Your task to perform on an android device: open app "McDonald's" (install if not already installed) Image 0: 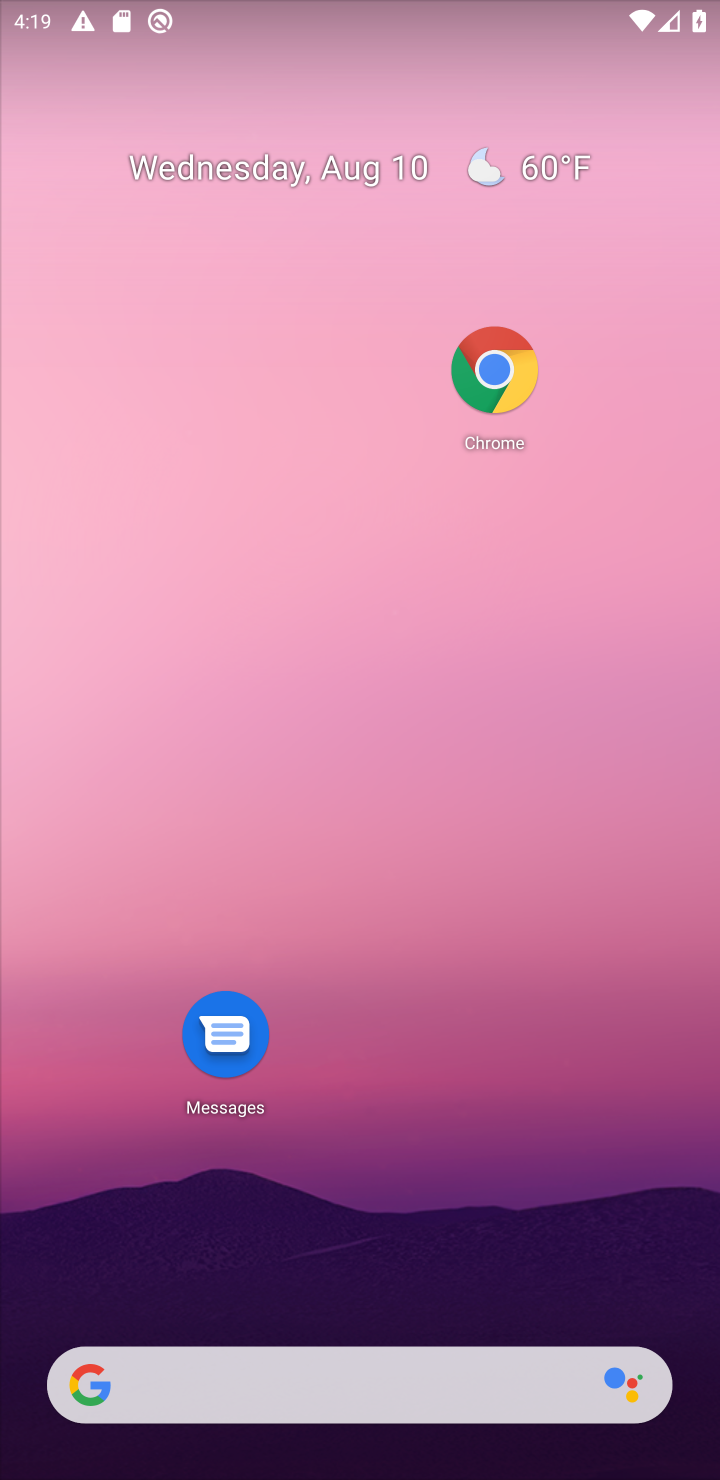
Step 0: click (57, 92)
Your task to perform on an android device: open app "McDonald's" (install if not already installed) Image 1: 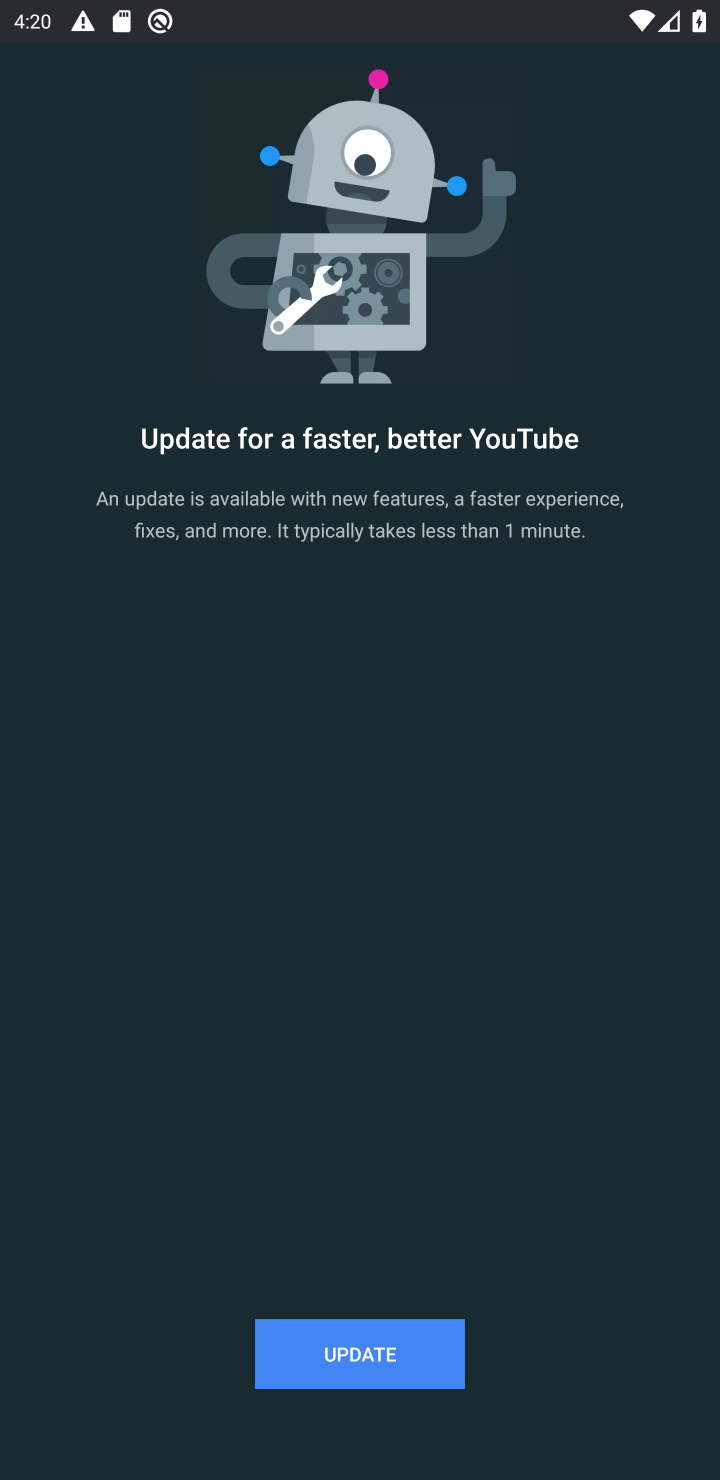
Step 1: press home button
Your task to perform on an android device: open app "McDonald's" (install if not already installed) Image 2: 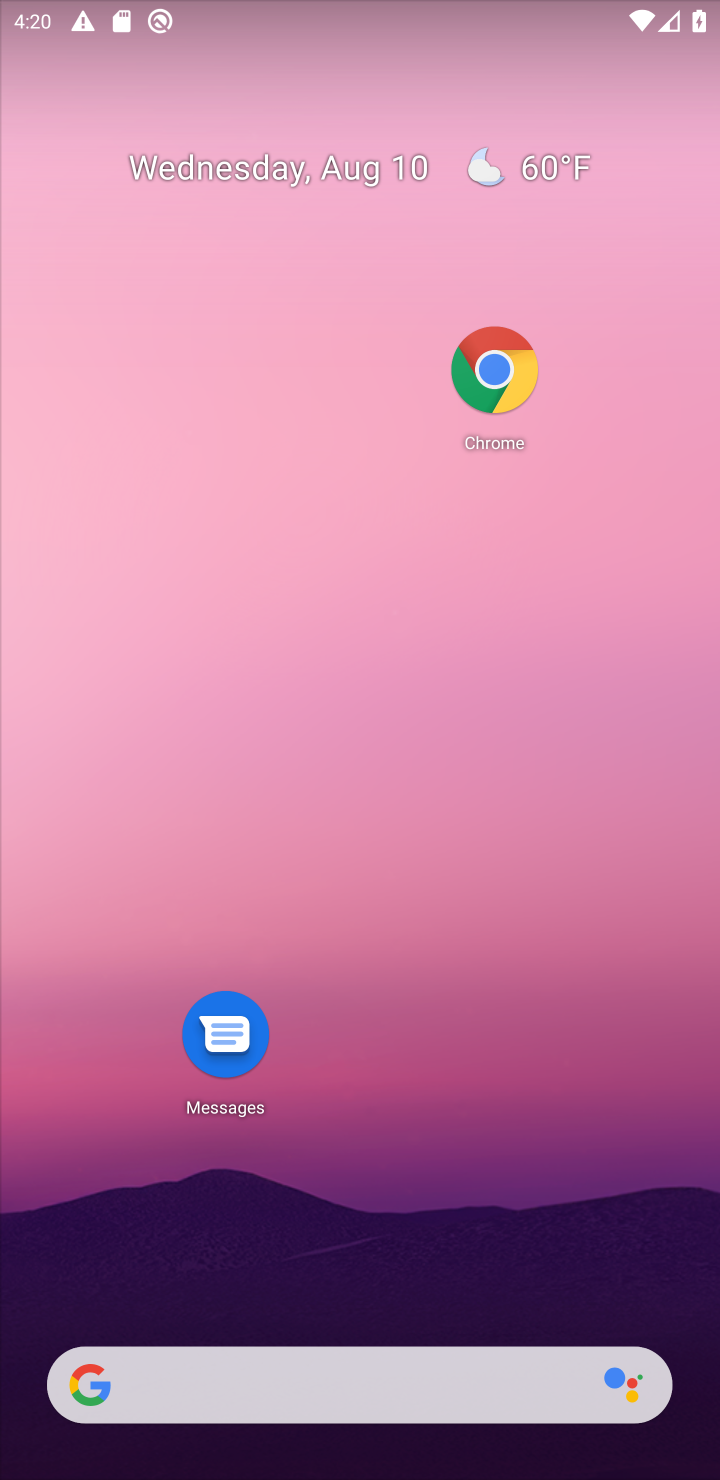
Step 2: drag from (357, 1304) to (362, 364)
Your task to perform on an android device: open app "McDonald's" (install if not already installed) Image 3: 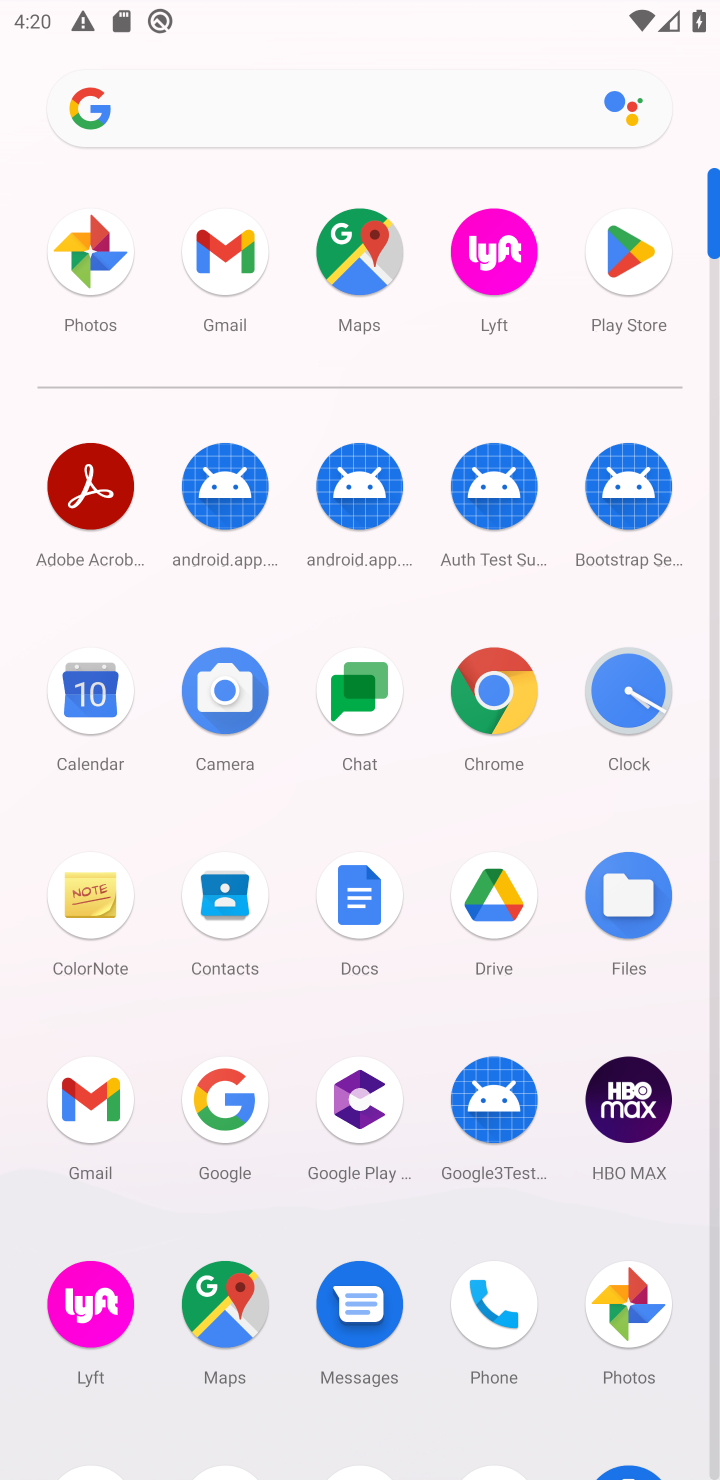
Step 3: click (607, 236)
Your task to perform on an android device: open app "McDonald's" (install if not already installed) Image 4: 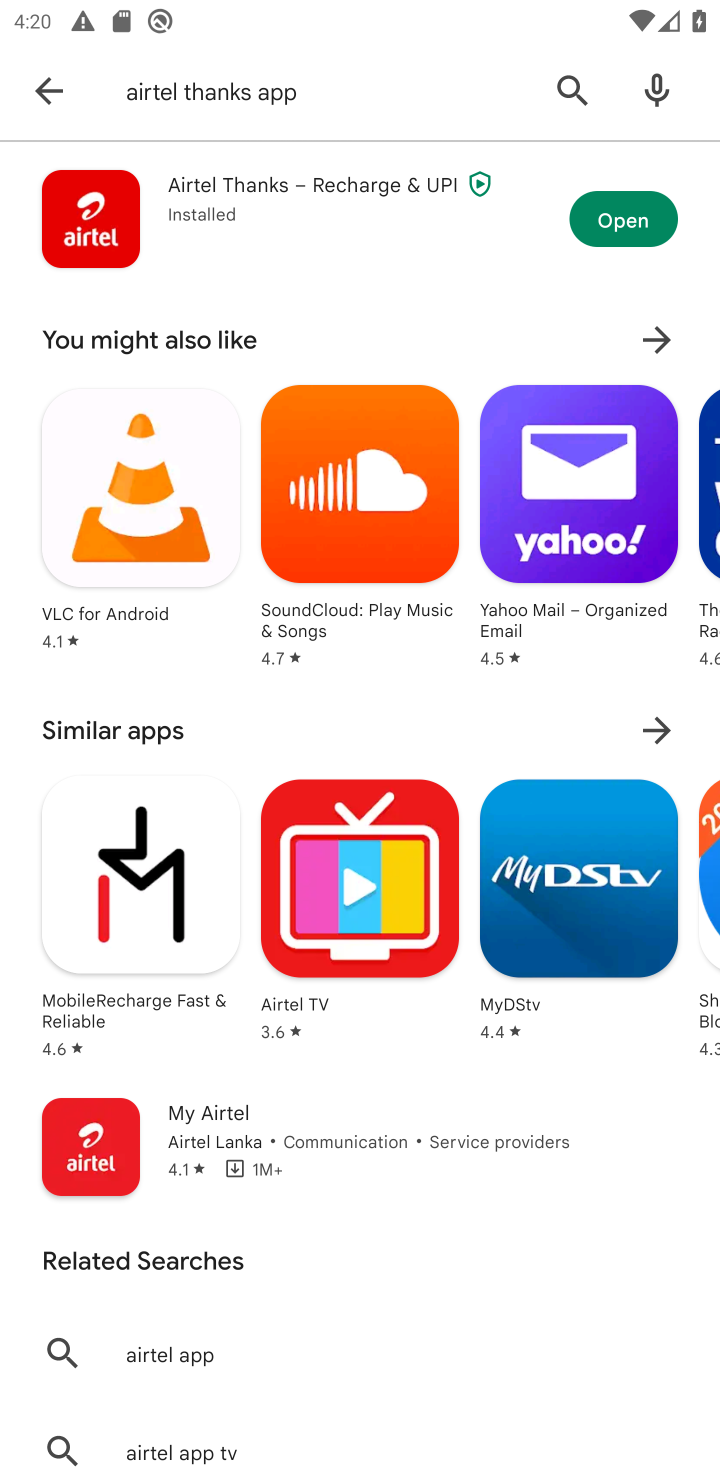
Step 4: click (84, 105)
Your task to perform on an android device: open app "McDonald's" (install if not already installed) Image 5: 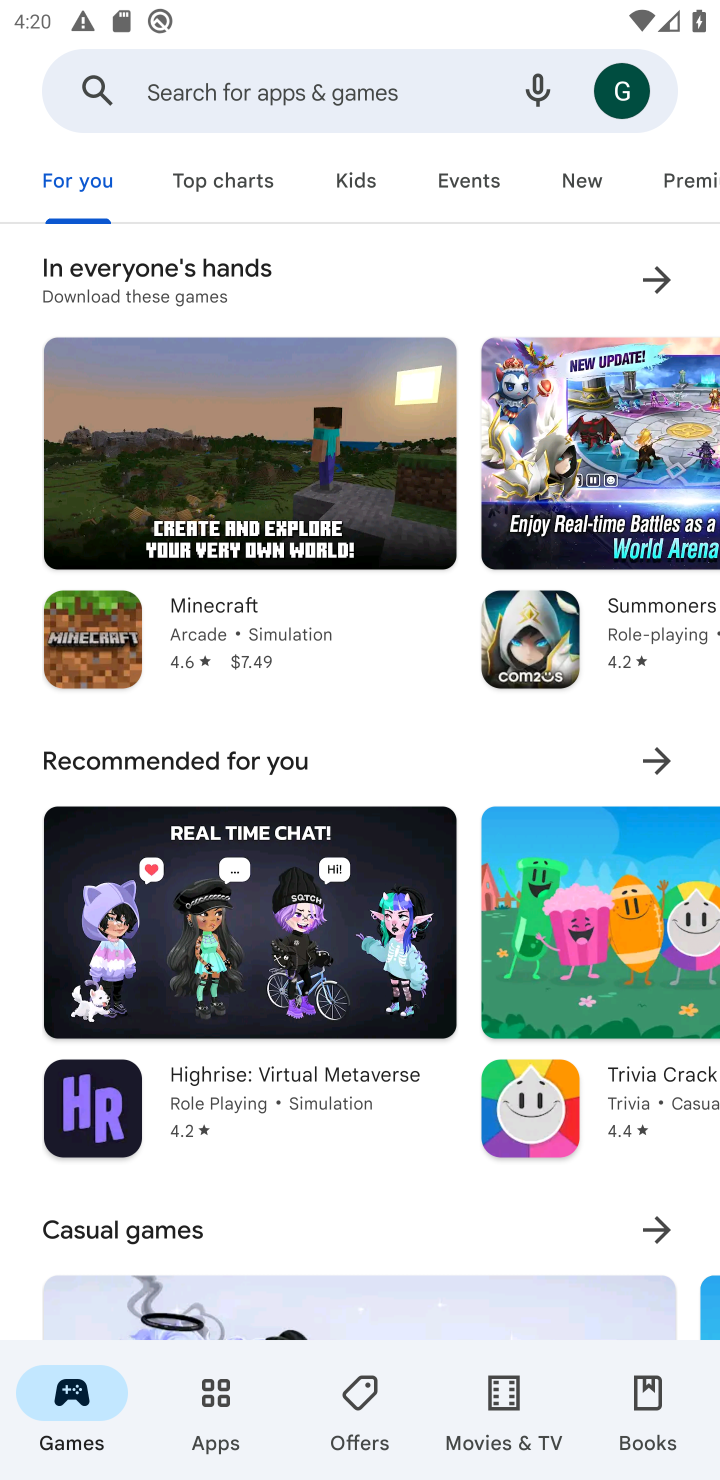
Step 5: click (335, 74)
Your task to perform on an android device: open app "McDonald's" (install if not already installed) Image 6: 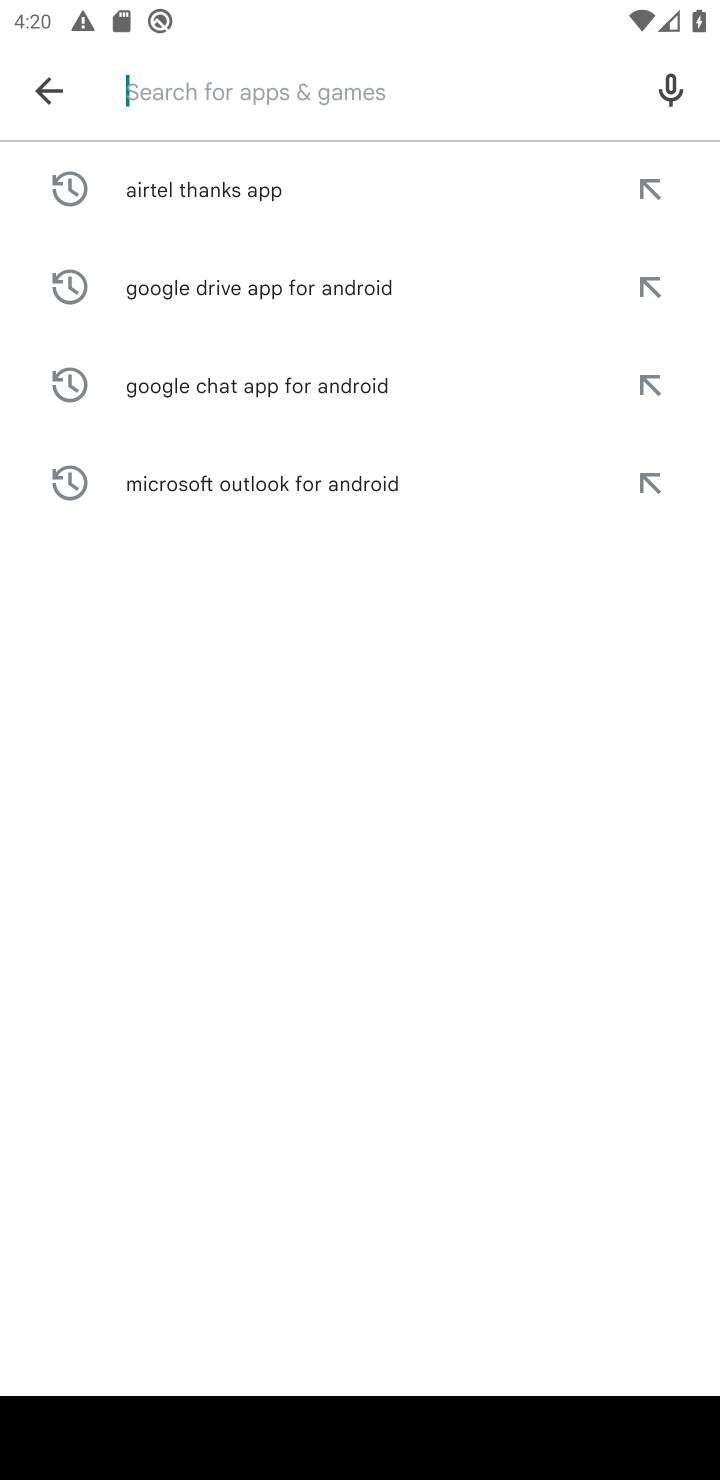
Step 6: type "McDonald's "
Your task to perform on an android device: open app "McDonald's" (install if not already installed) Image 7: 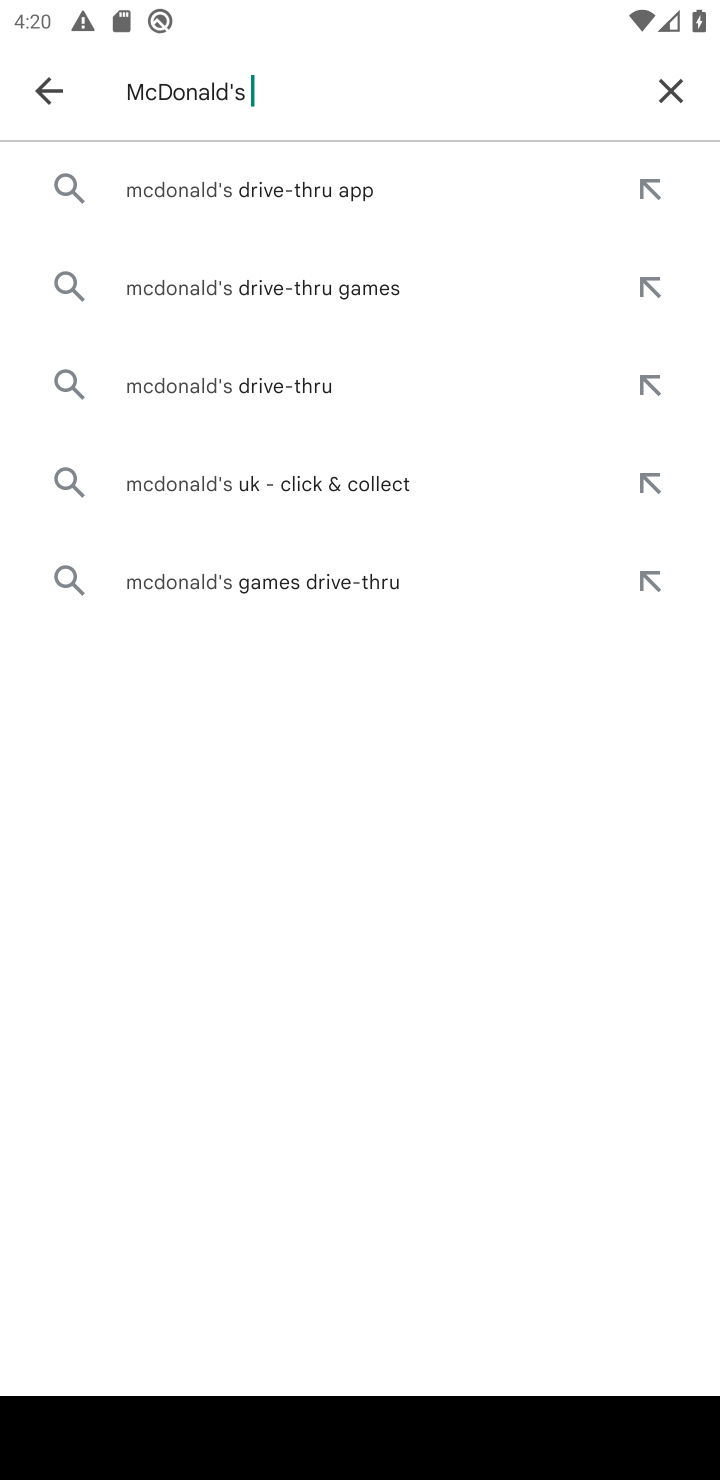
Step 7: click (241, 203)
Your task to perform on an android device: open app "McDonald's" (install if not already installed) Image 8: 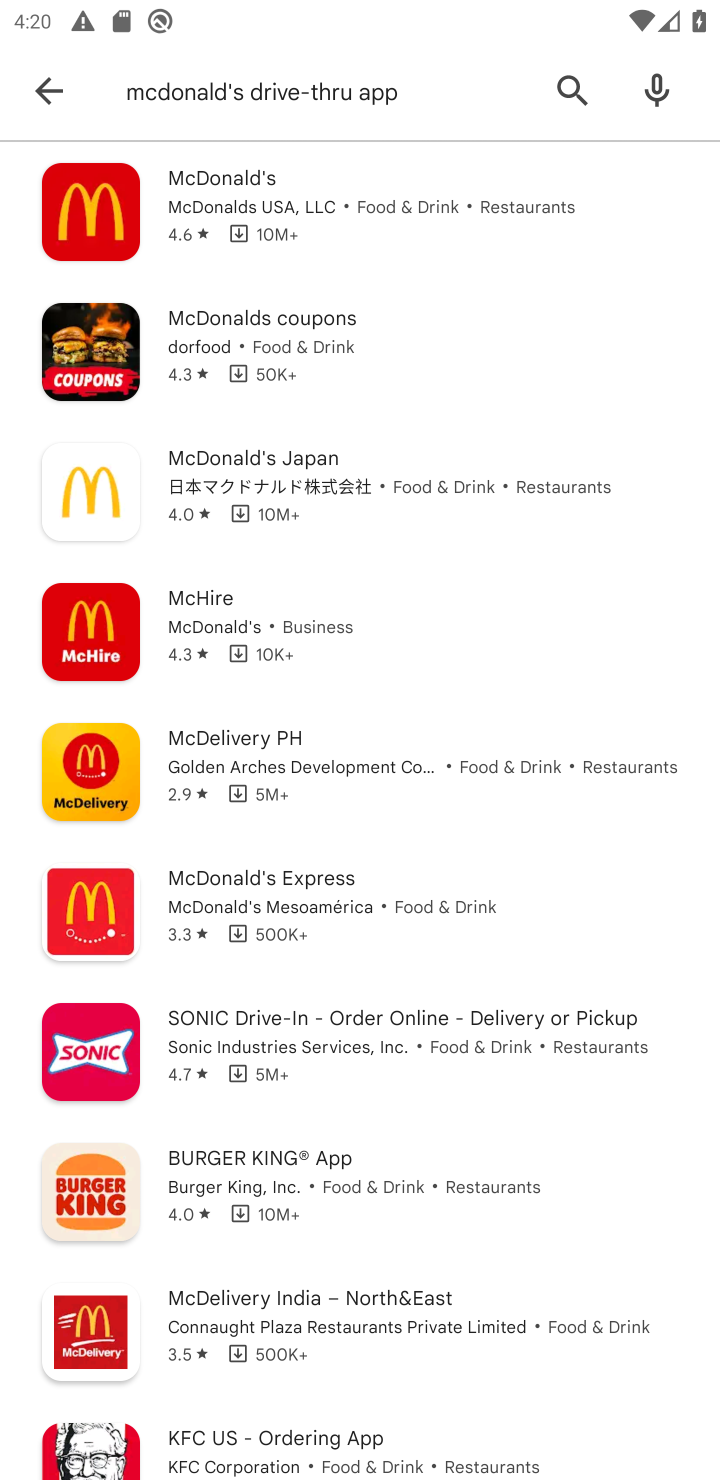
Step 8: click (241, 211)
Your task to perform on an android device: open app "McDonald's" (install if not already installed) Image 9: 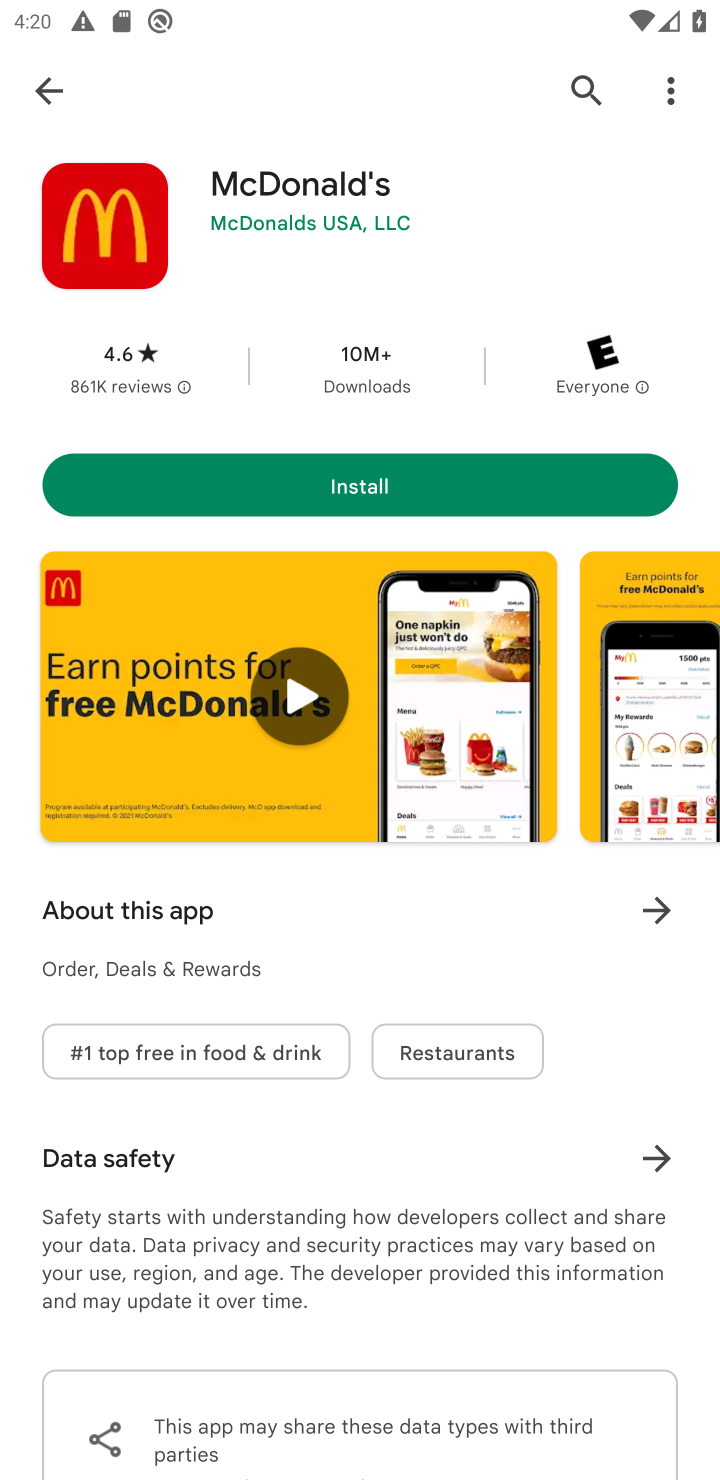
Step 9: click (355, 452)
Your task to perform on an android device: open app "McDonald's" (install if not already installed) Image 10: 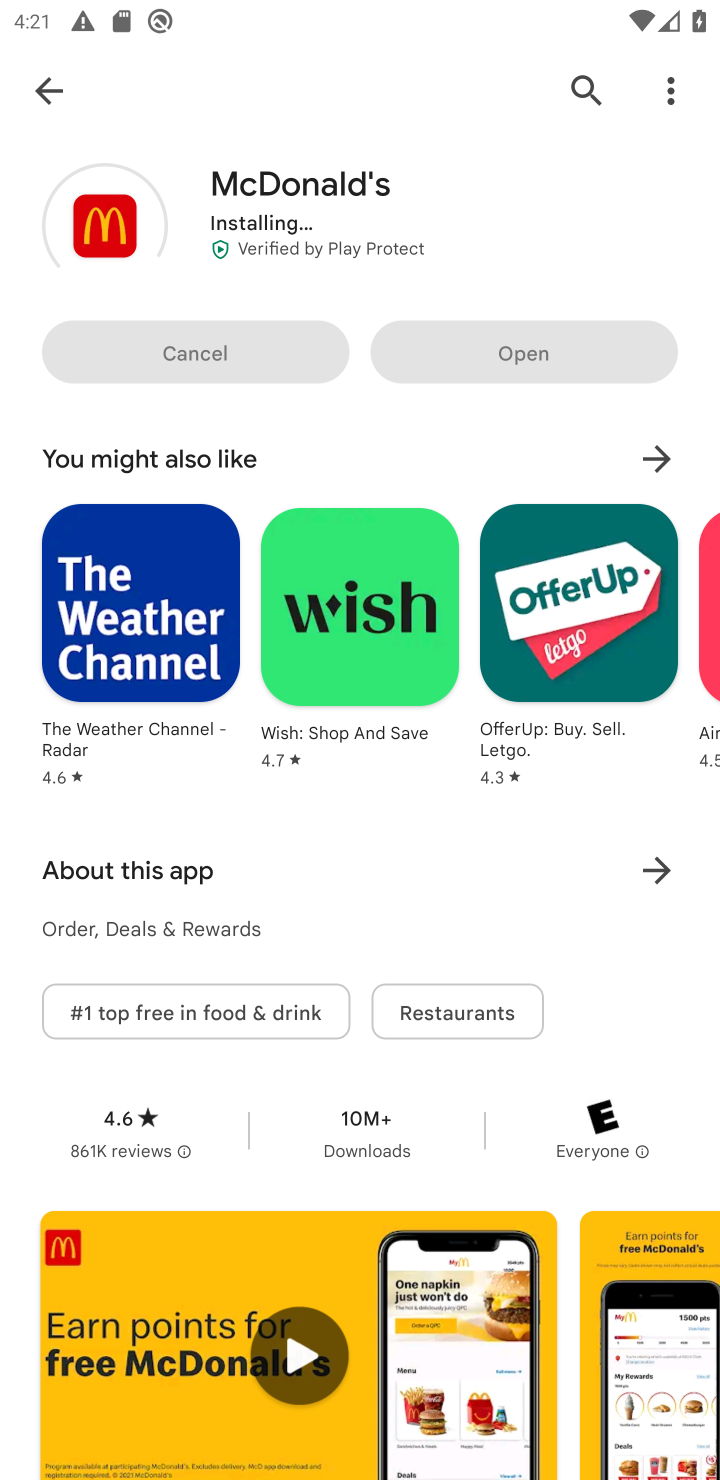
Step 10: task complete